Your task to perform on an android device: Search for Italian restaurants on Maps Image 0: 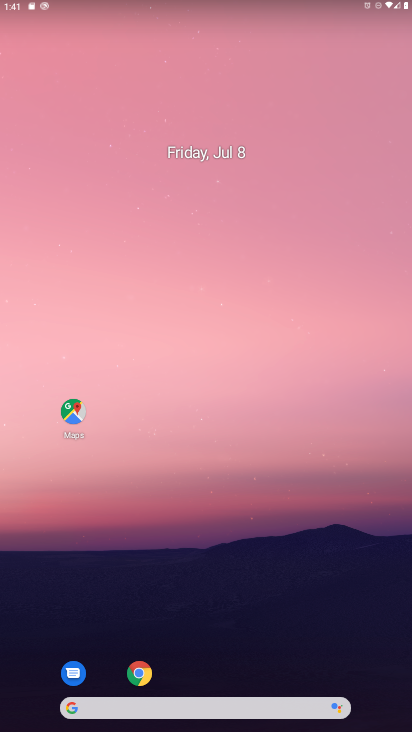
Step 0: click (66, 407)
Your task to perform on an android device: Search for Italian restaurants on Maps Image 1: 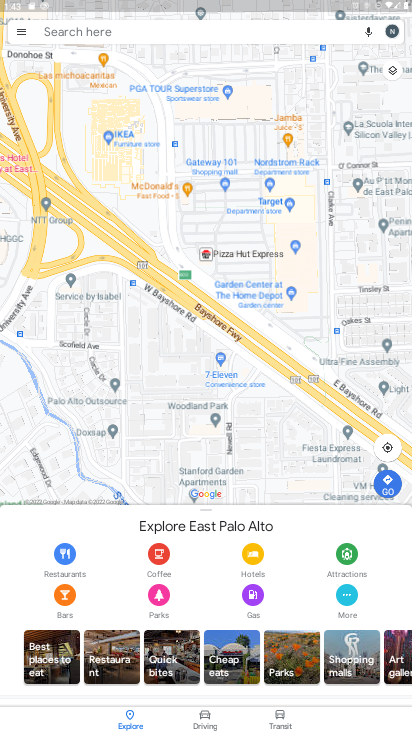
Step 1: click (146, 32)
Your task to perform on an android device: Search for Italian restaurants on Maps Image 2: 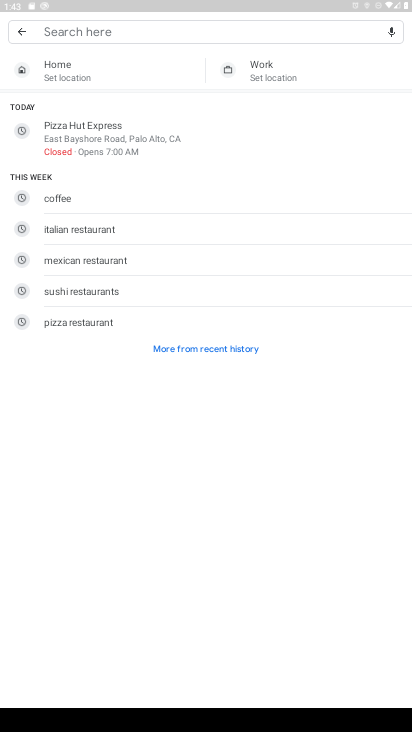
Step 2: type "Italian restaurants"
Your task to perform on an android device: Search for Italian restaurants on Maps Image 3: 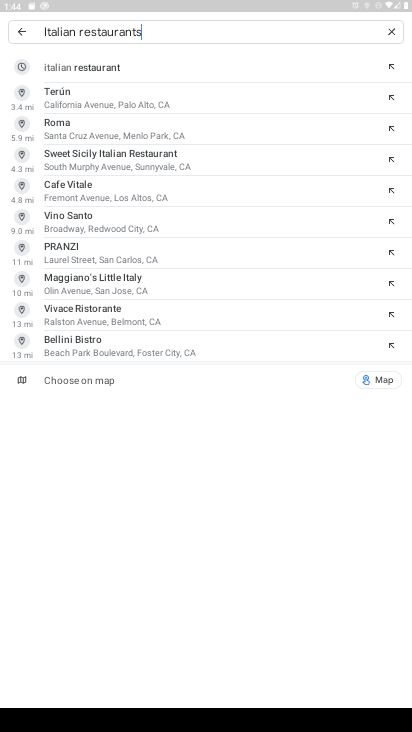
Step 3: click (106, 67)
Your task to perform on an android device: Search for Italian restaurants on Maps Image 4: 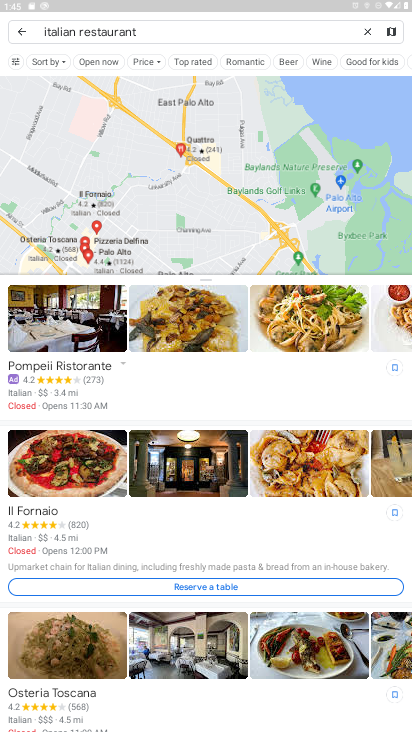
Step 4: task complete